Your task to perform on an android device: What is the recent news? Image 0: 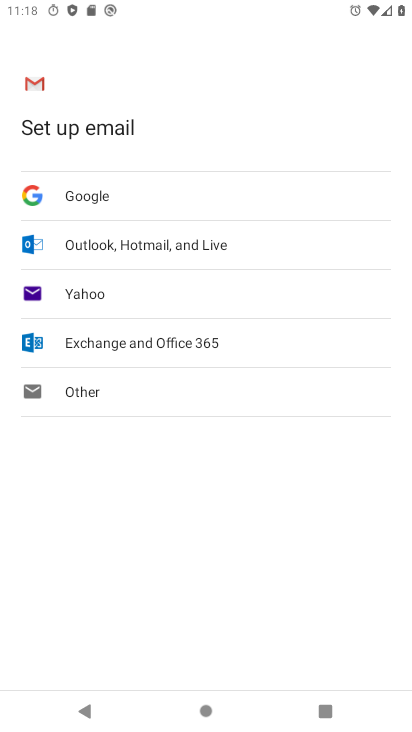
Step 0: press home button
Your task to perform on an android device: What is the recent news? Image 1: 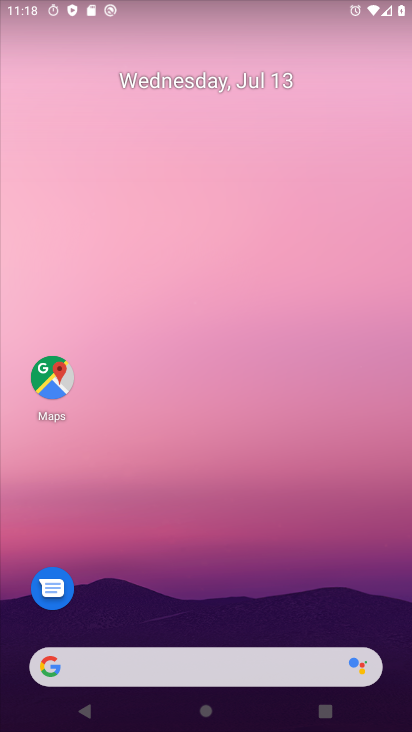
Step 1: click (182, 679)
Your task to perform on an android device: What is the recent news? Image 2: 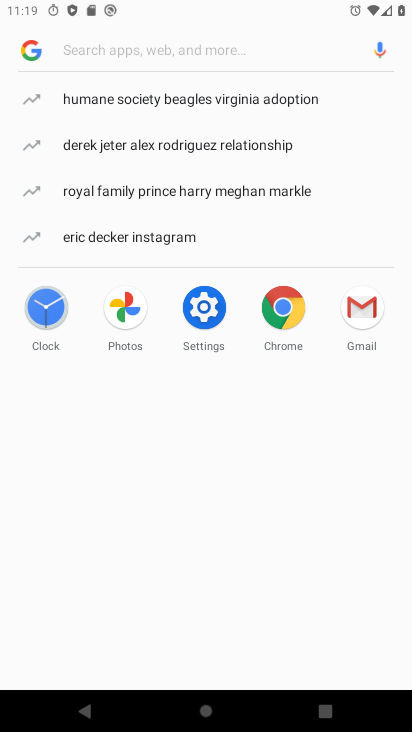
Step 2: type "recent news"
Your task to perform on an android device: What is the recent news? Image 3: 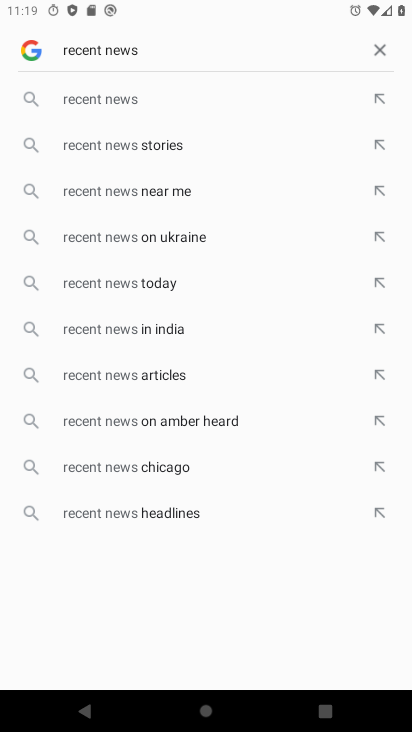
Step 3: press enter
Your task to perform on an android device: What is the recent news? Image 4: 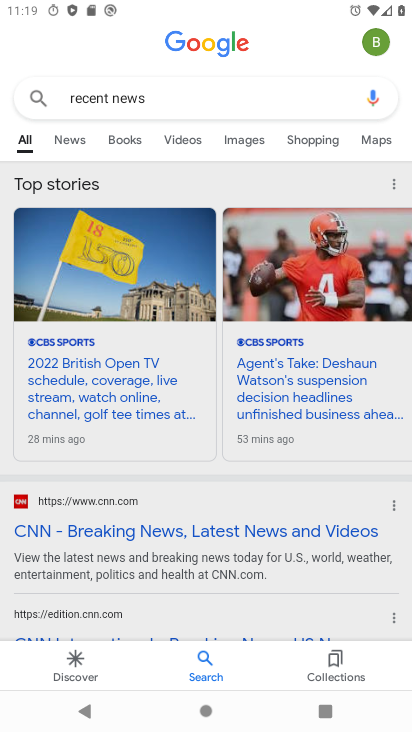
Step 4: task complete